Your task to perform on an android device: add a contact Image 0: 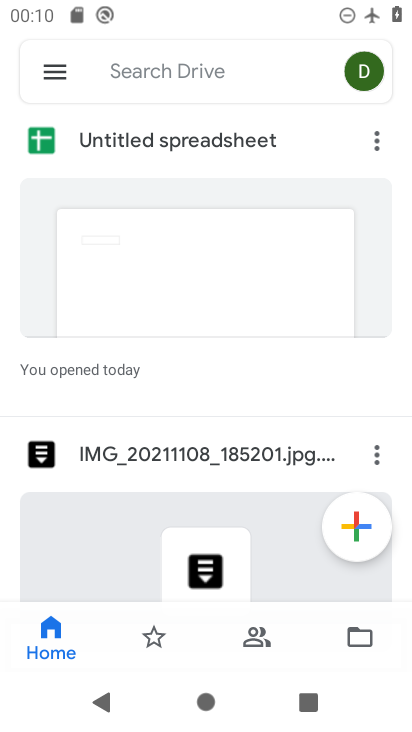
Step 0: press home button
Your task to perform on an android device: add a contact Image 1: 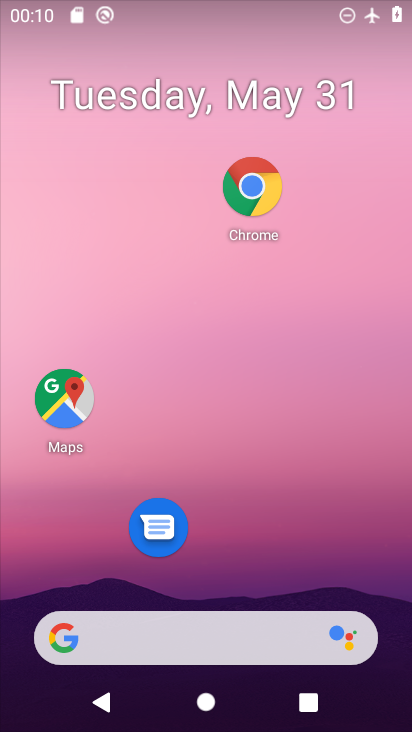
Step 1: drag from (268, 583) to (193, 317)
Your task to perform on an android device: add a contact Image 2: 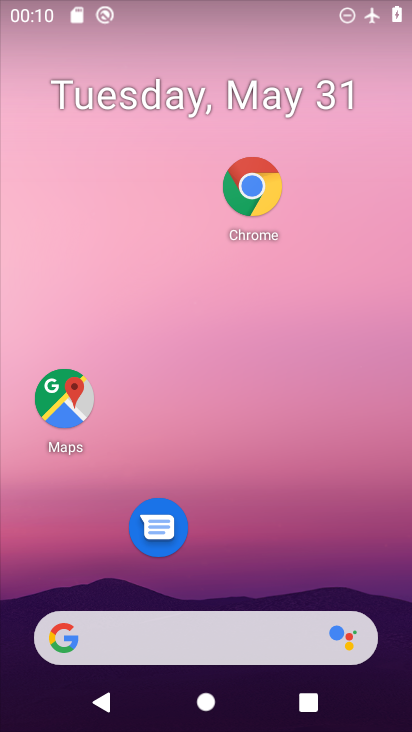
Step 2: drag from (230, 583) to (215, 280)
Your task to perform on an android device: add a contact Image 3: 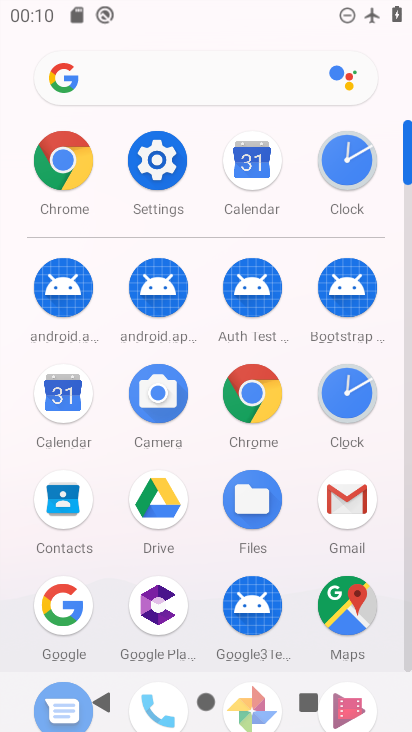
Step 3: drag from (184, 569) to (186, 449)
Your task to perform on an android device: add a contact Image 4: 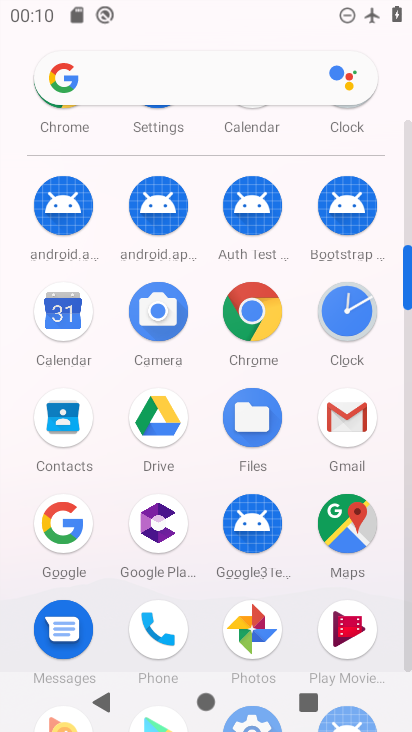
Step 4: click (135, 627)
Your task to perform on an android device: add a contact Image 5: 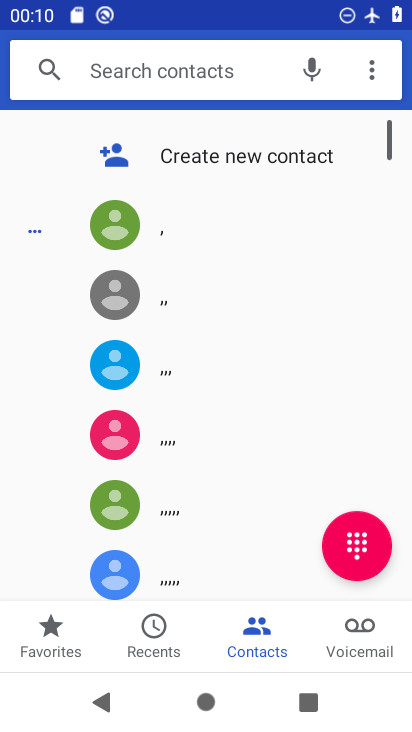
Step 5: click (196, 148)
Your task to perform on an android device: add a contact Image 6: 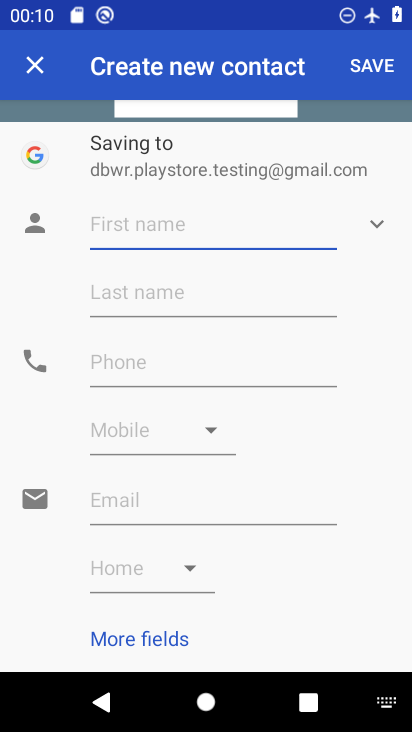
Step 6: type "zxzxzxzxzxz"
Your task to perform on an android device: add a contact Image 7: 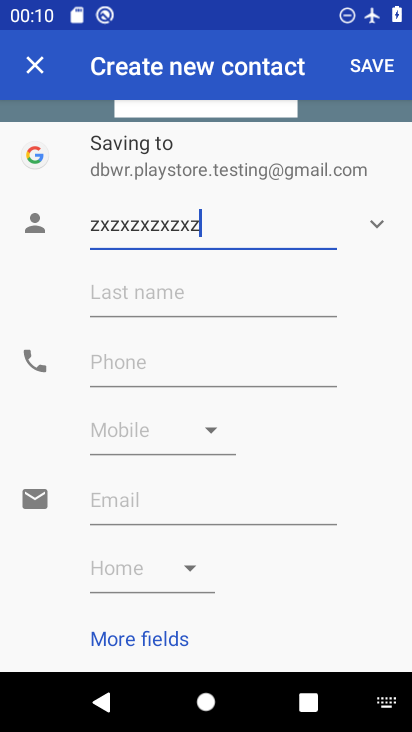
Step 7: click (258, 374)
Your task to perform on an android device: add a contact Image 8: 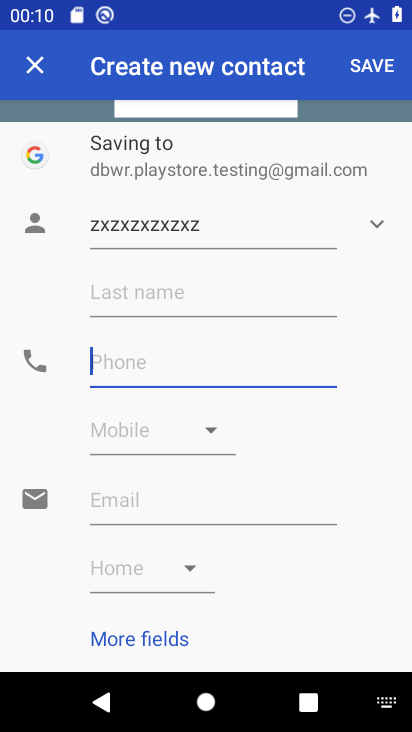
Step 8: type "234567890"
Your task to perform on an android device: add a contact Image 9: 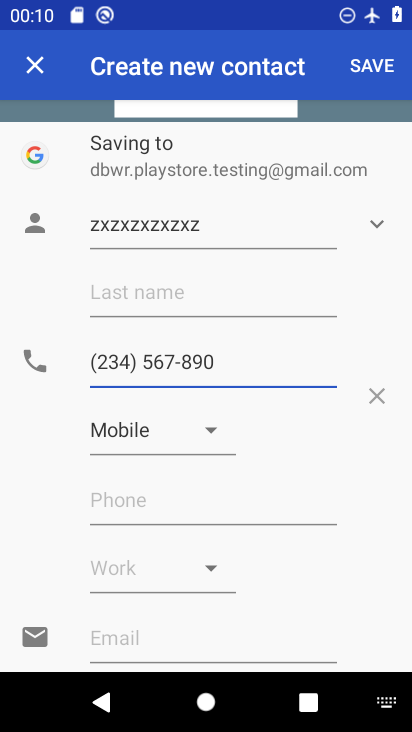
Step 9: click (379, 60)
Your task to perform on an android device: add a contact Image 10: 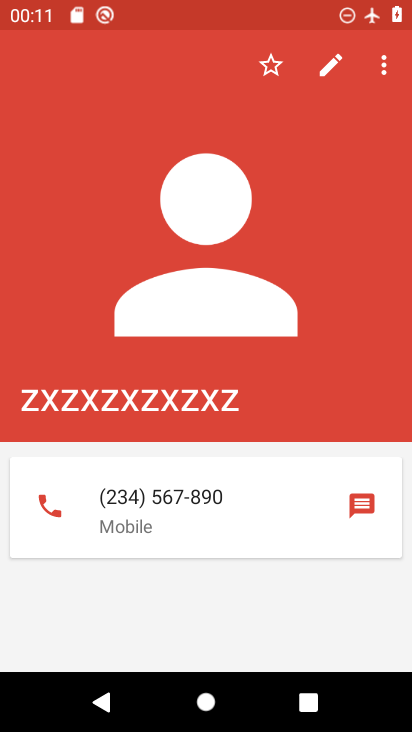
Step 10: task complete